Your task to perform on an android device: turn on the 24-hour format for clock Image 0: 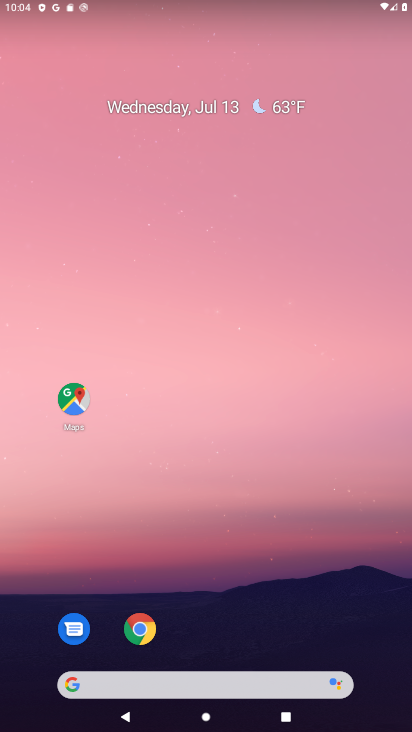
Step 0: drag from (300, 731) to (153, 123)
Your task to perform on an android device: turn on the 24-hour format for clock Image 1: 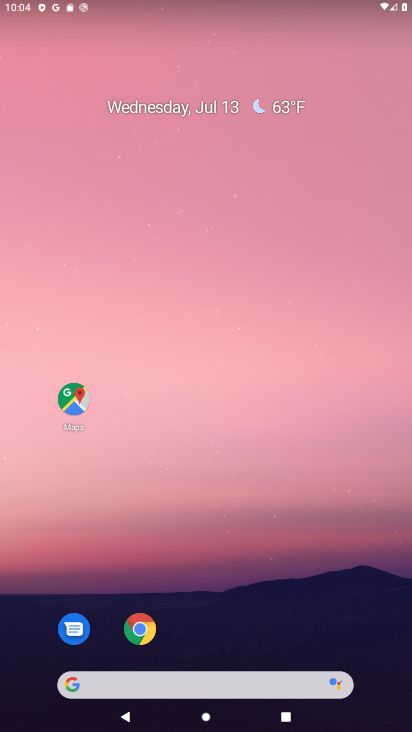
Step 1: drag from (185, 461) to (127, 167)
Your task to perform on an android device: turn on the 24-hour format for clock Image 2: 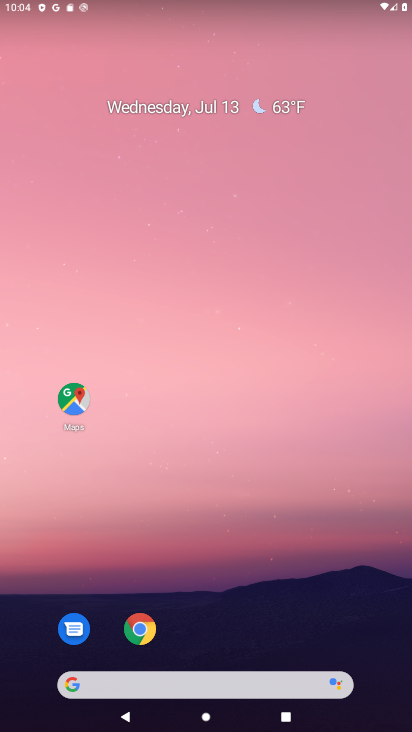
Step 2: drag from (267, 304) to (238, 120)
Your task to perform on an android device: turn on the 24-hour format for clock Image 3: 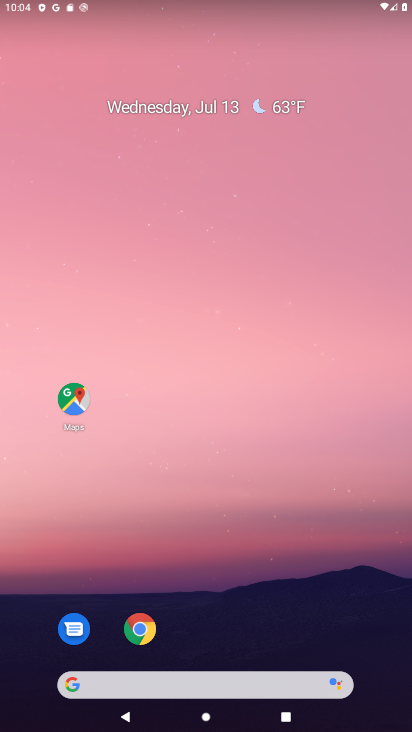
Step 3: drag from (147, 12) to (184, 147)
Your task to perform on an android device: turn on the 24-hour format for clock Image 4: 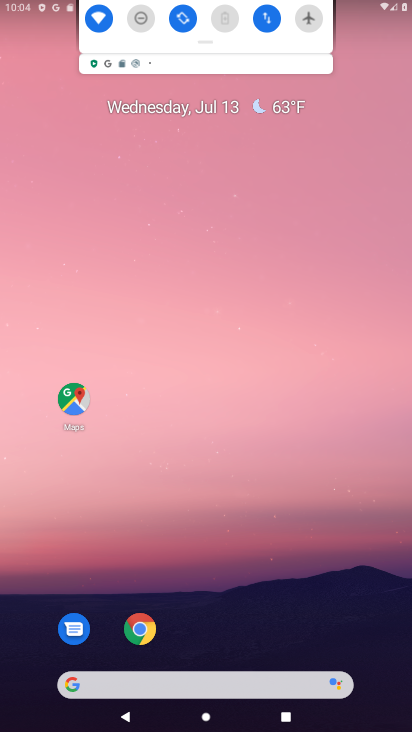
Step 4: click (228, 181)
Your task to perform on an android device: turn on the 24-hour format for clock Image 5: 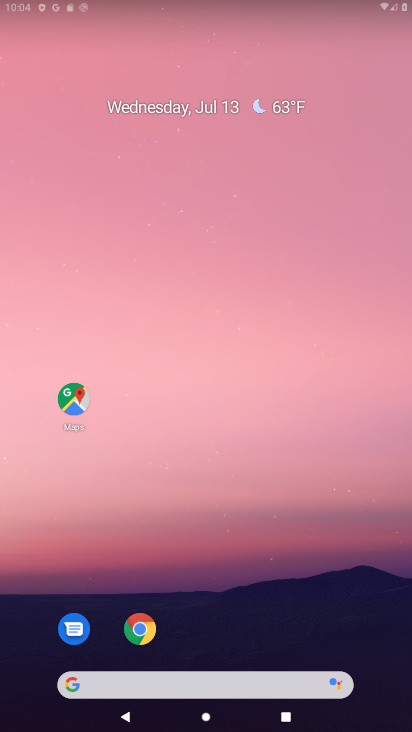
Step 5: drag from (202, 336) to (186, 220)
Your task to perform on an android device: turn on the 24-hour format for clock Image 6: 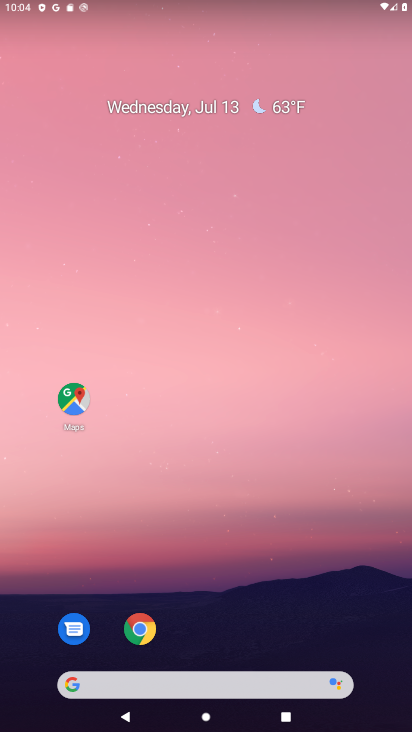
Step 6: drag from (152, 586) to (40, 106)
Your task to perform on an android device: turn on the 24-hour format for clock Image 7: 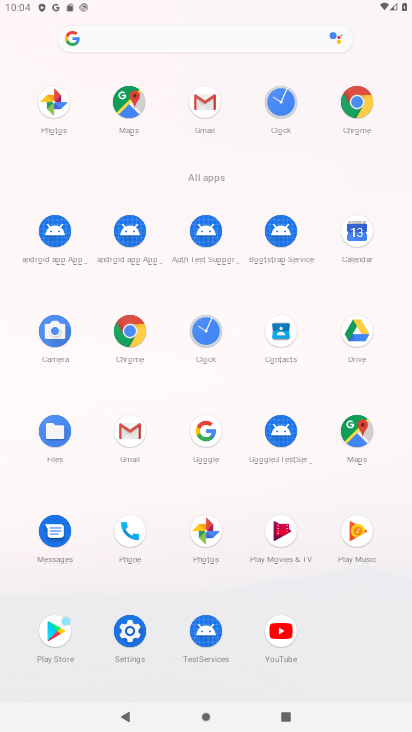
Step 7: drag from (196, 397) to (166, 116)
Your task to perform on an android device: turn on the 24-hour format for clock Image 8: 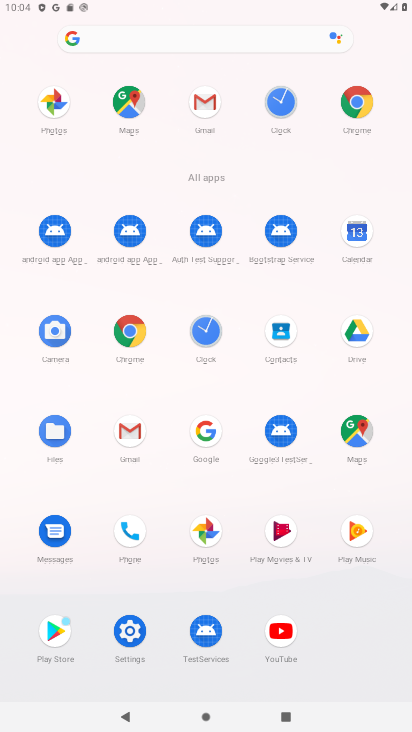
Step 8: click (206, 322)
Your task to perform on an android device: turn on the 24-hour format for clock Image 9: 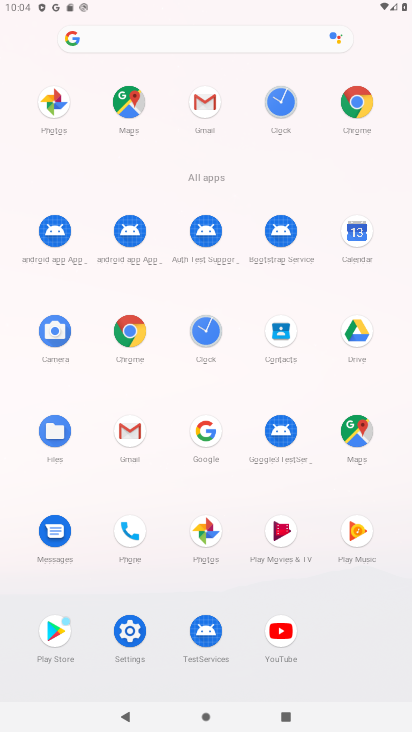
Step 9: click (206, 322)
Your task to perform on an android device: turn on the 24-hour format for clock Image 10: 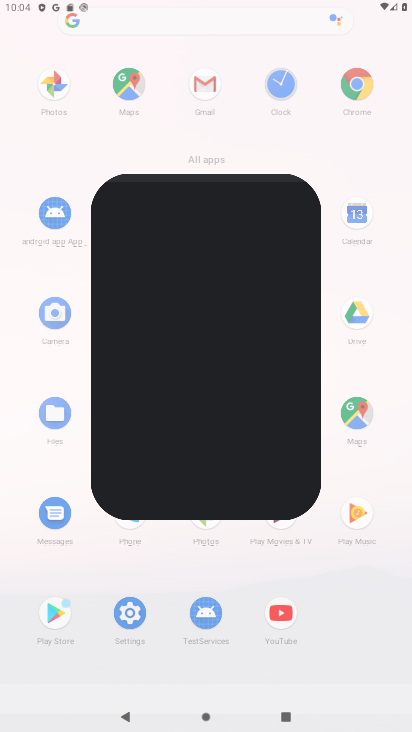
Step 10: click (207, 333)
Your task to perform on an android device: turn on the 24-hour format for clock Image 11: 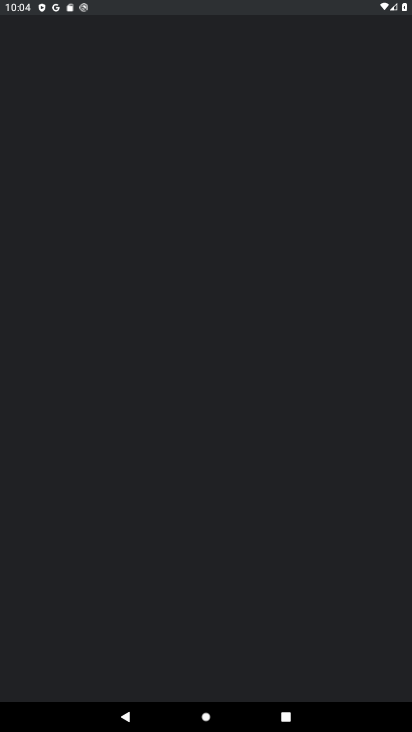
Step 11: click (207, 333)
Your task to perform on an android device: turn on the 24-hour format for clock Image 12: 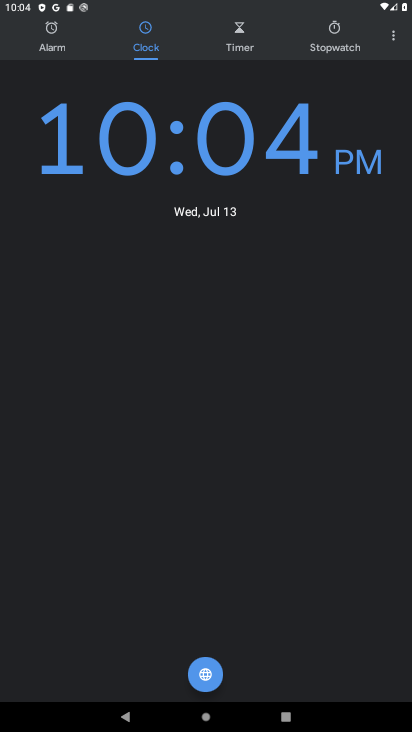
Step 12: drag from (389, 38) to (272, 189)
Your task to perform on an android device: turn on the 24-hour format for clock Image 13: 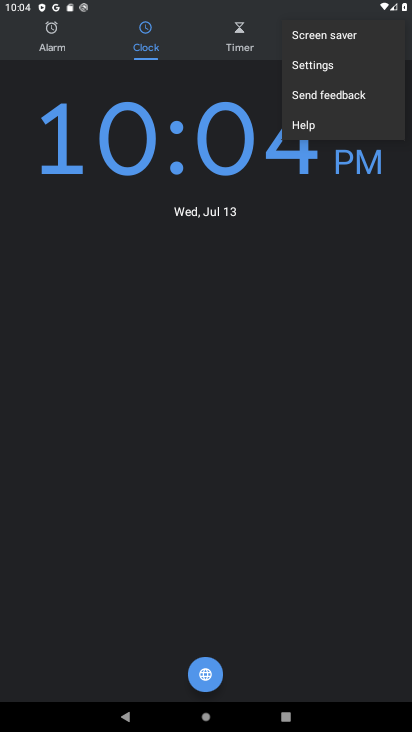
Step 13: click (282, 161)
Your task to perform on an android device: turn on the 24-hour format for clock Image 14: 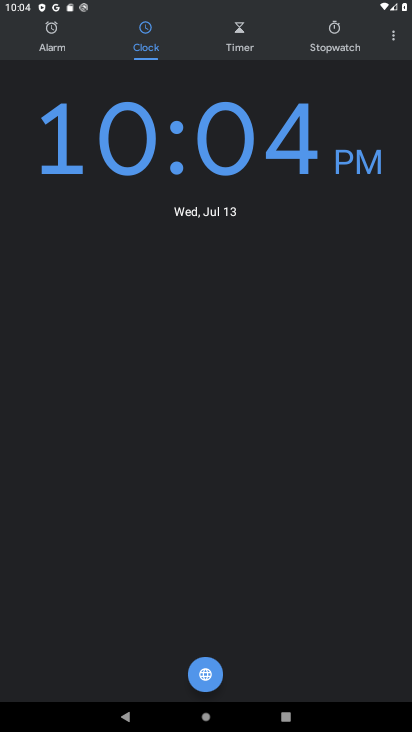
Step 14: click (392, 45)
Your task to perform on an android device: turn on the 24-hour format for clock Image 15: 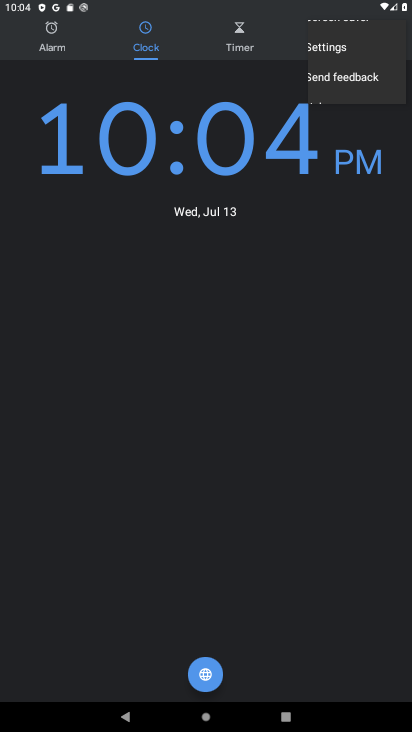
Step 15: click (392, 45)
Your task to perform on an android device: turn on the 24-hour format for clock Image 16: 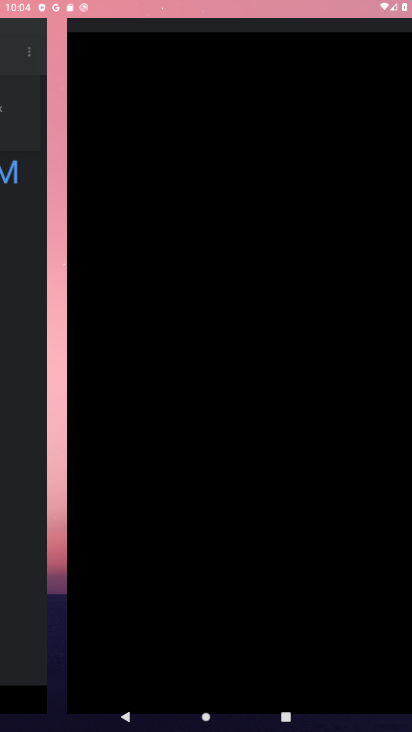
Step 16: click (393, 45)
Your task to perform on an android device: turn on the 24-hour format for clock Image 17: 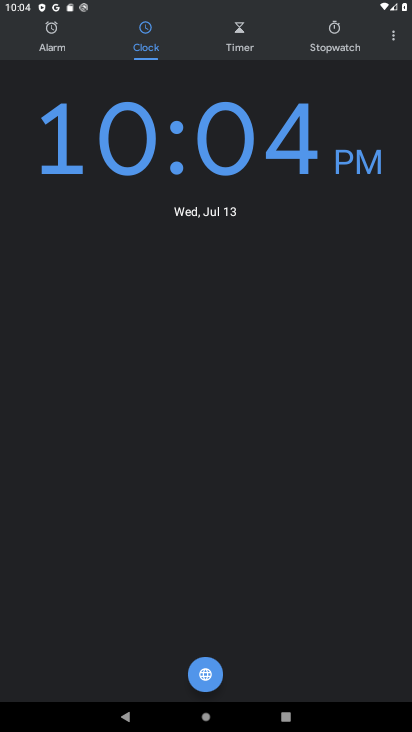
Step 17: click (390, 37)
Your task to perform on an android device: turn on the 24-hour format for clock Image 18: 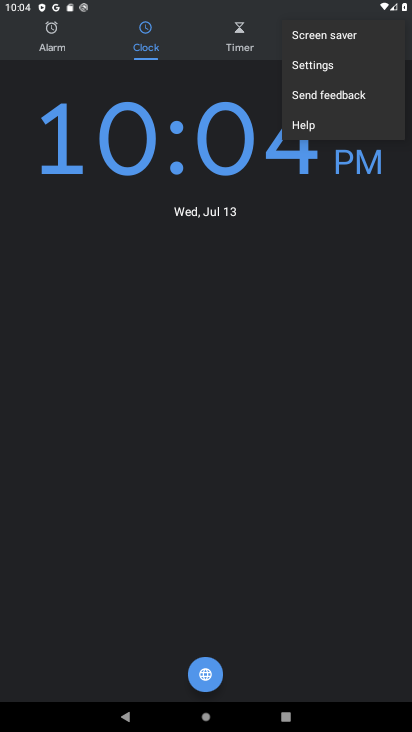
Step 18: click (339, 64)
Your task to perform on an android device: turn on the 24-hour format for clock Image 19: 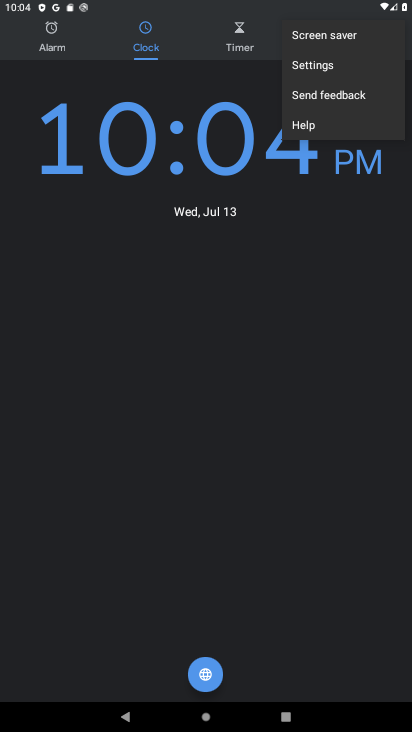
Step 19: click (324, 73)
Your task to perform on an android device: turn on the 24-hour format for clock Image 20: 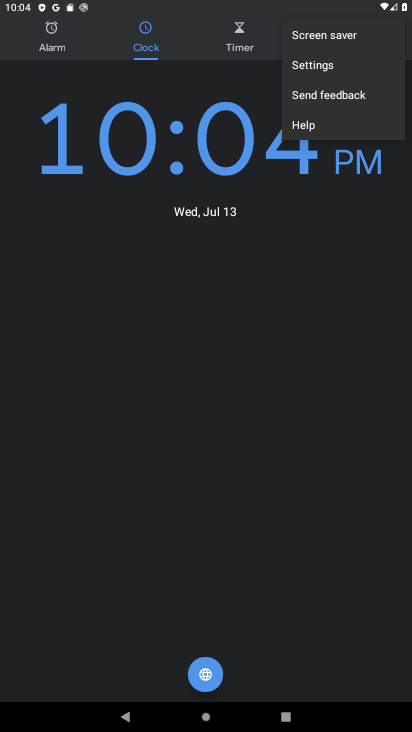
Step 20: click (323, 72)
Your task to perform on an android device: turn on the 24-hour format for clock Image 21: 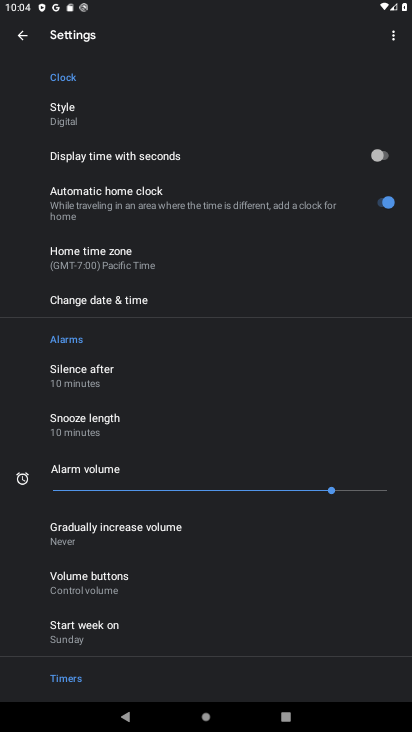
Step 21: click (77, 292)
Your task to perform on an android device: turn on the 24-hour format for clock Image 22: 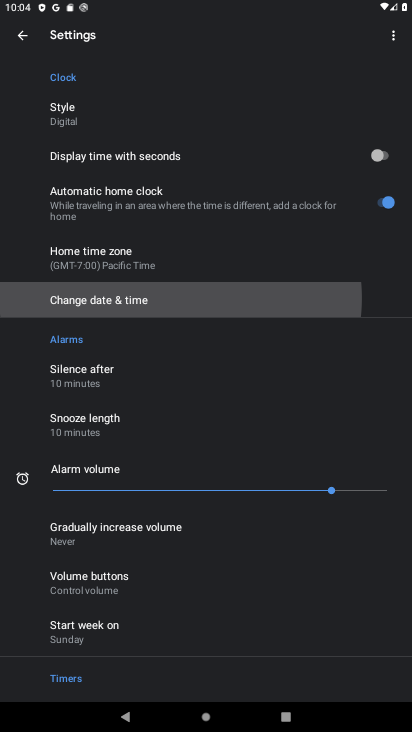
Step 22: click (81, 294)
Your task to perform on an android device: turn on the 24-hour format for clock Image 23: 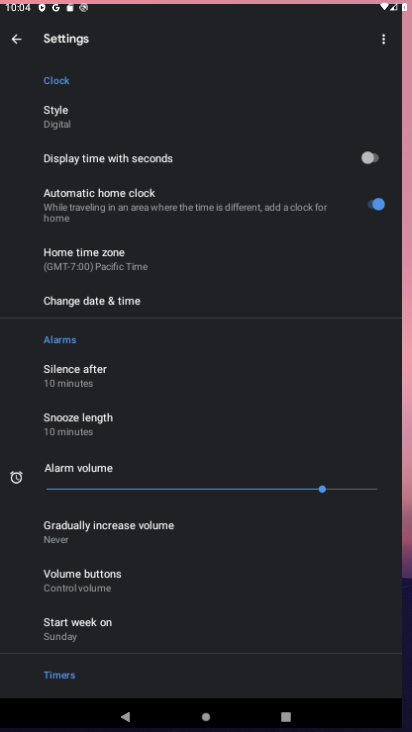
Step 23: click (81, 294)
Your task to perform on an android device: turn on the 24-hour format for clock Image 24: 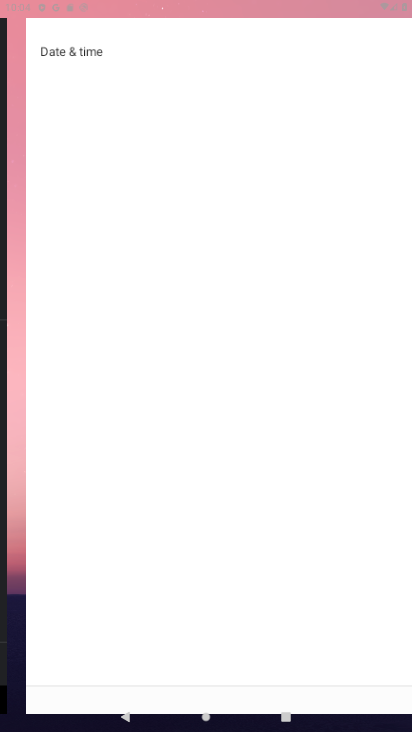
Step 24: click (82, 295)
Your task to perform on an android device: turn on the 24-hour format for clock Image 25: 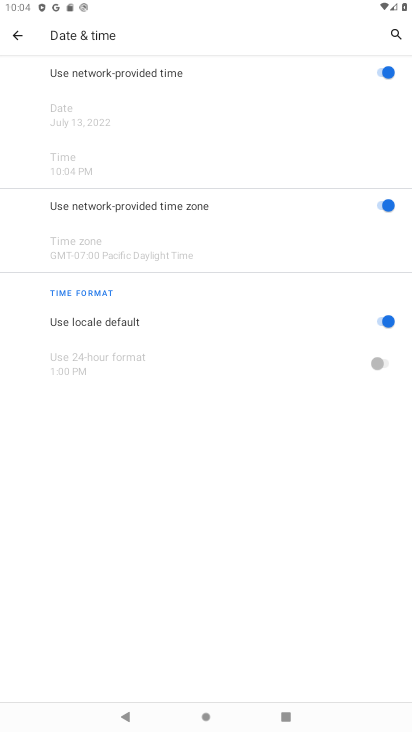
Step 25: click (381, 327)
Your task to perform on an android device: turn on the 24-hour format for clock Image 26: 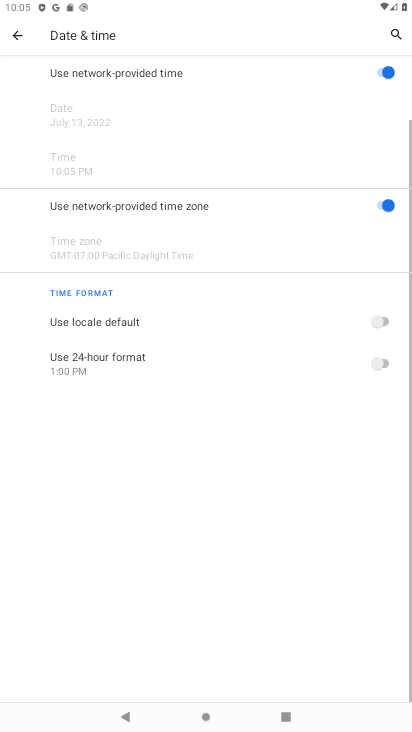
Step 26: click (385, 363)
Your task to perform on an android device: turn on the 24-hour format for clock Image 27: 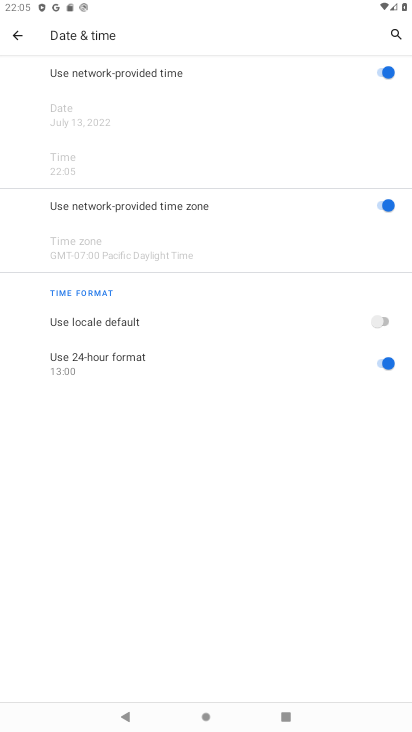
Step 27: task complete